Your task to perform on an android device: Is it going to rain today? Image 0: 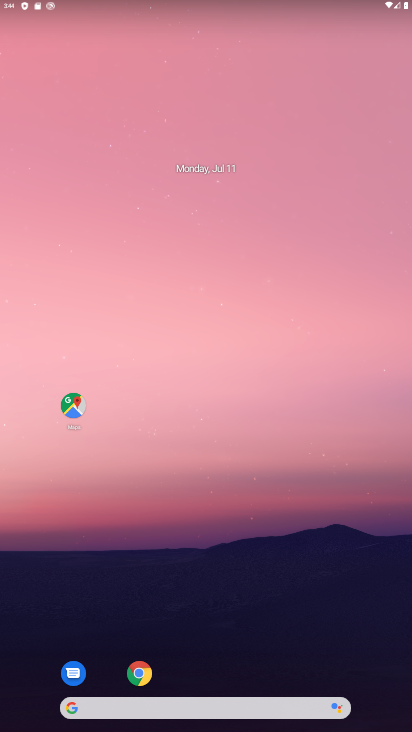
Step 0: drag from (257, 347) to (159, 7)
Your task to perform on an android device: Is it going to rain today? Image 1: 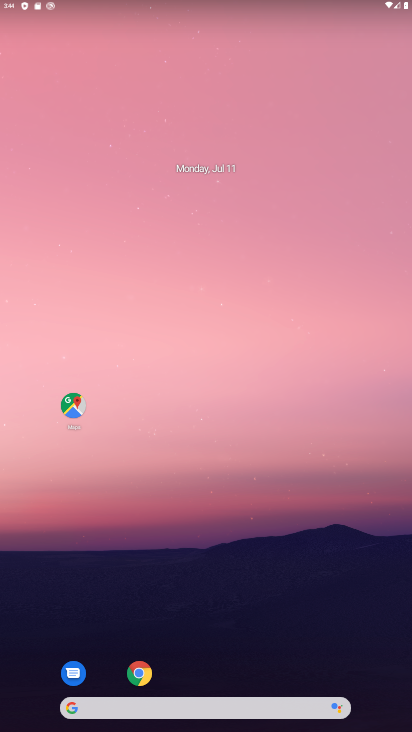
Step 1: drag from (373, 691) to (213, 70)
Your task to perform on an android device: Is it going to rain today? Image 2: 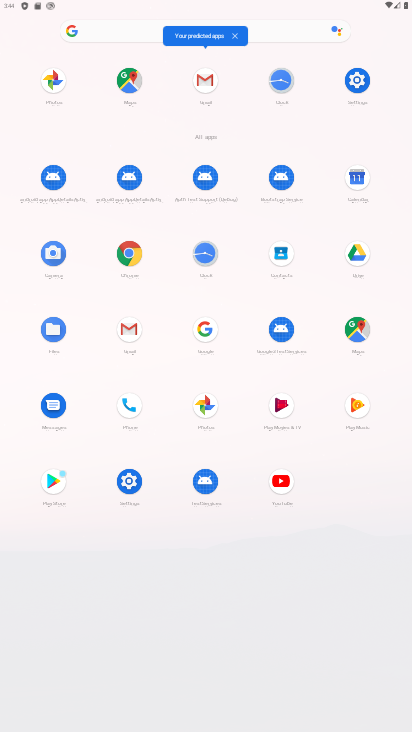
Step 2: click (205, 328)
Your task to perform on an android device: Is it going to rain today? Image 3: 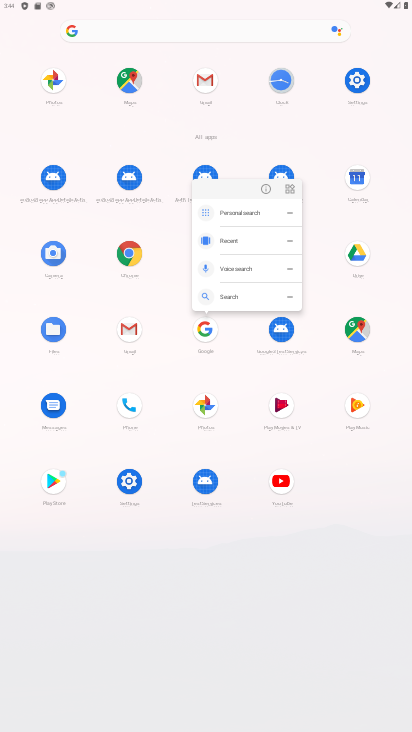
Step 3: click (316, 309)
Your task to perform on an android device: Is it going to rain today? Image 4: 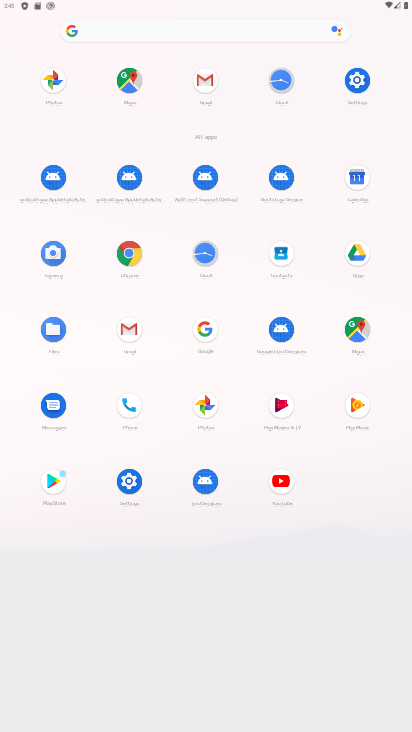
Step 4: click (207, 330)
Your task to perform on an android device: Is it going to rain today? Image 5: 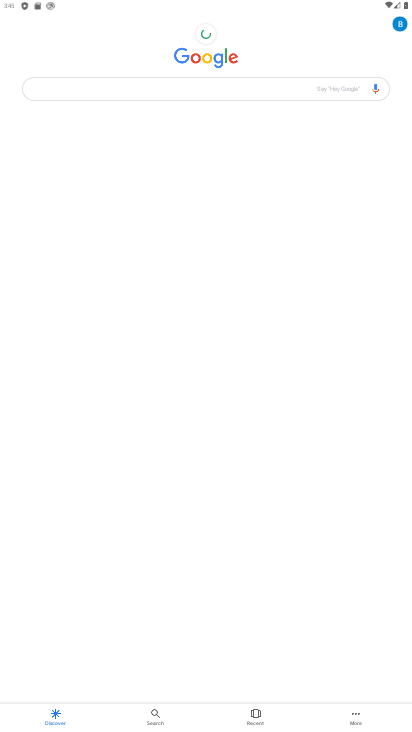
Step 5: click (207, 91)
Your task to perform on an android device: Is it going to rain today? Image 6: 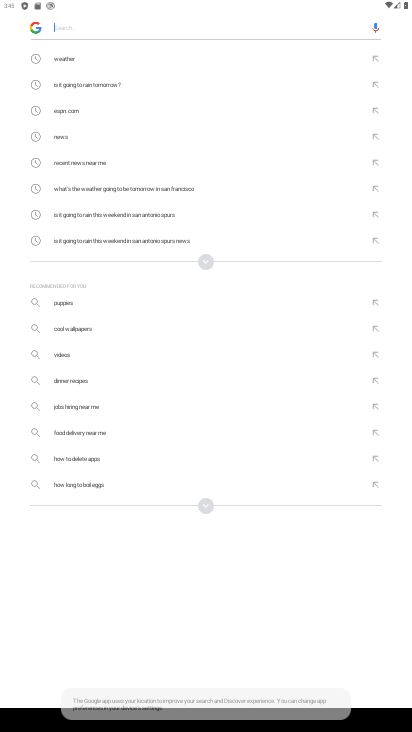
Step 6: type "Is it going to rain today?"
Your task to perform on an android device: Is it going to rain today? Image 7: 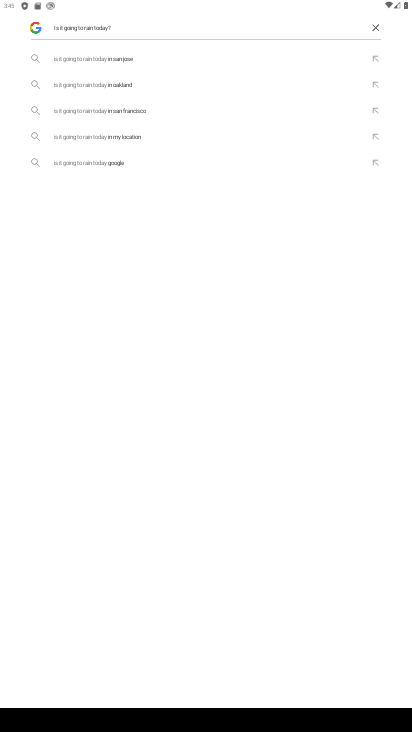
Step 7: click (90, 169)
Your task to perform on an android device: Is it going to rain today? Image 8: 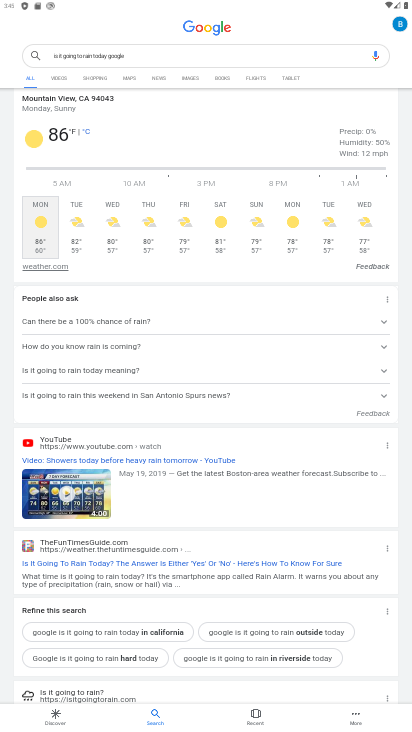
Step 8: task complete